Your task to perform on an android device: toggle improve location accuracy Image 0: 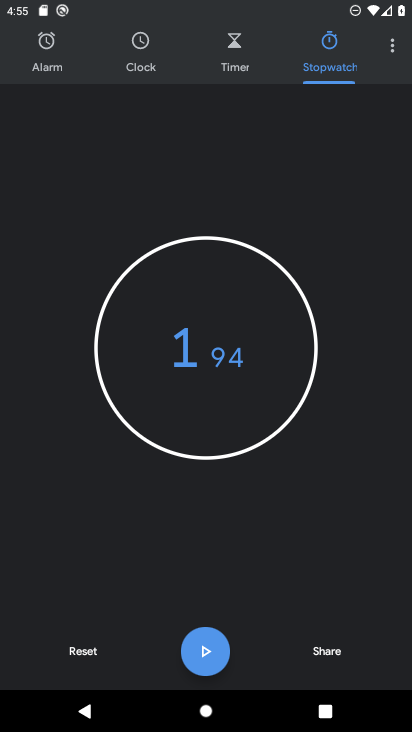
Step 0: press home button
Your task to perform on an android device: toggle improve location accuracy Image 1: 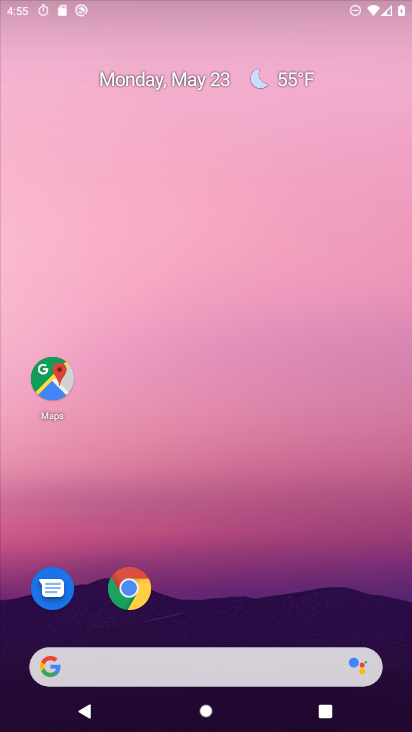
Step 1: drag from (217, 601) to (226, 34)
Your task to perform on an android device: toggle improve location accuracy Image 2: 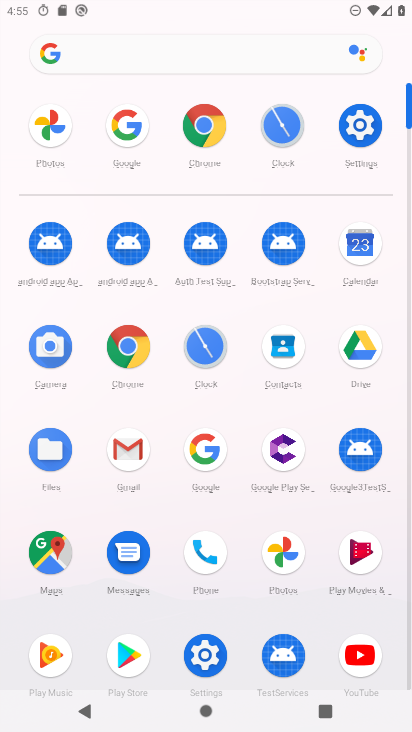
Step 2: click (351, 119)
Your task to perform on an android device: toggle improve location accuracy Image 3: 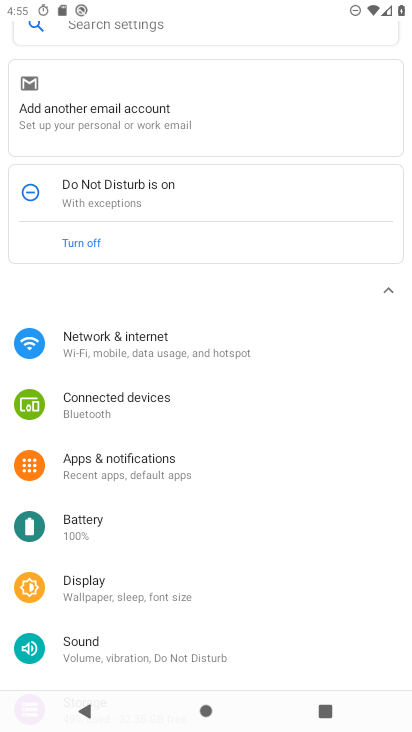
Step 3: drag from (200, 615) to (248, 127)
Your task to perform on an android device: toggle improve location accuracy Image 4: 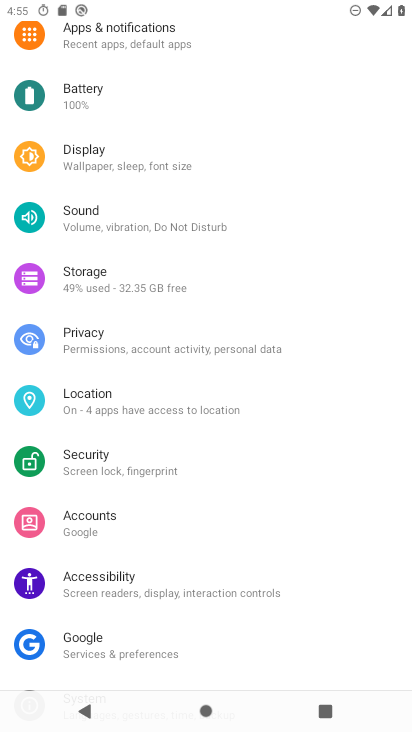
Step 4: click (88, 405)
Your task to perform on an android device: toggle improve location accuracy Image 5: 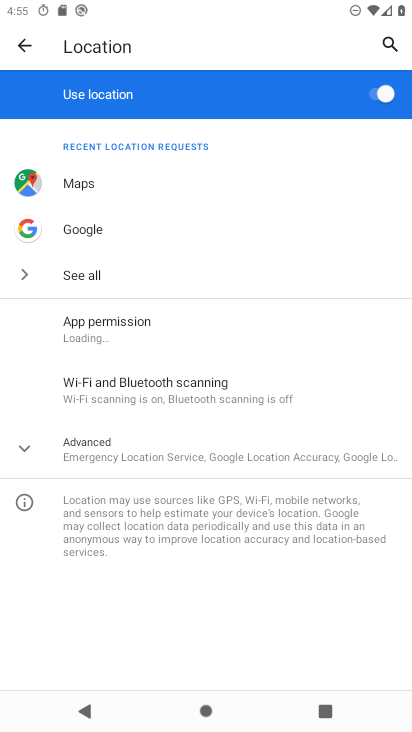
Step 5: click (117, 425)
Your task to perform on an android device: toggle improve location accuracy Image 6: 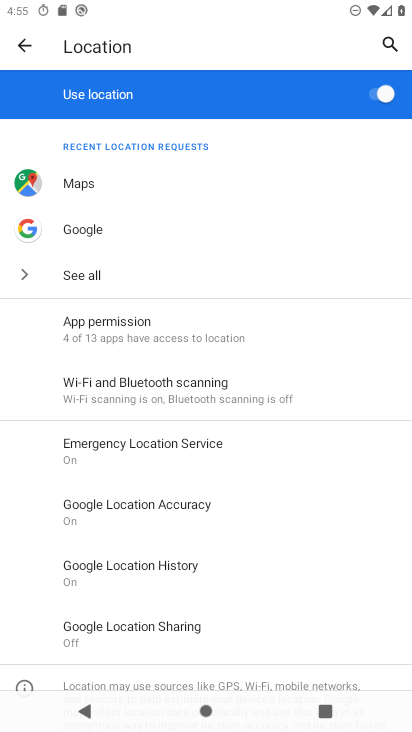
Step 6: click (193, 510)
Your task to perform on an android device: toggle improve location accuracy Image 7: 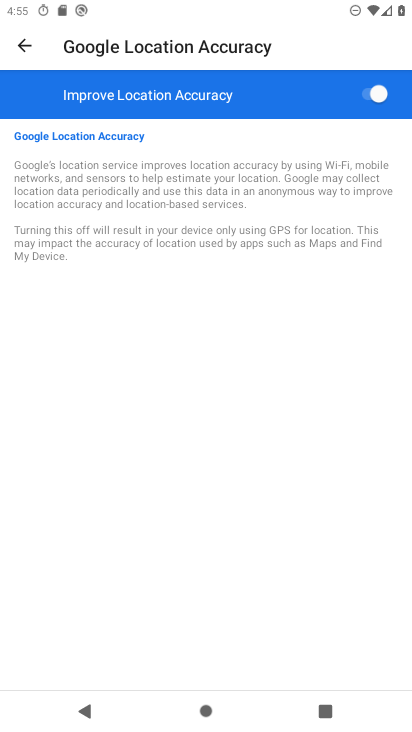
Step 7: click (364, 99)
Your task to perform on an android device: toggle improve location accuracy Image 8: 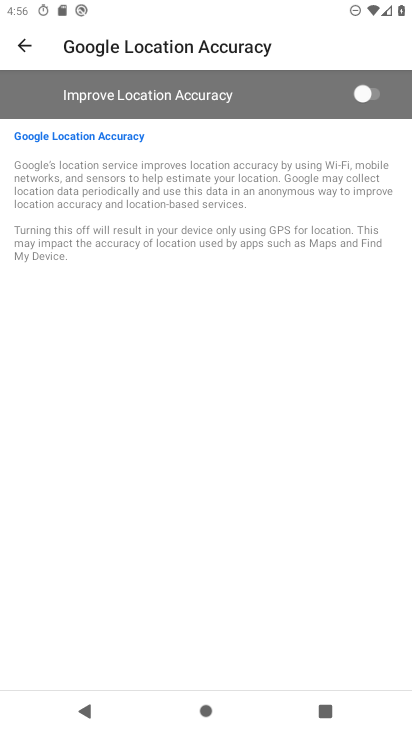
Step 8: task complete